Your task to perform on an android device: Open Google Maps and go to "Timeline" Image 0: 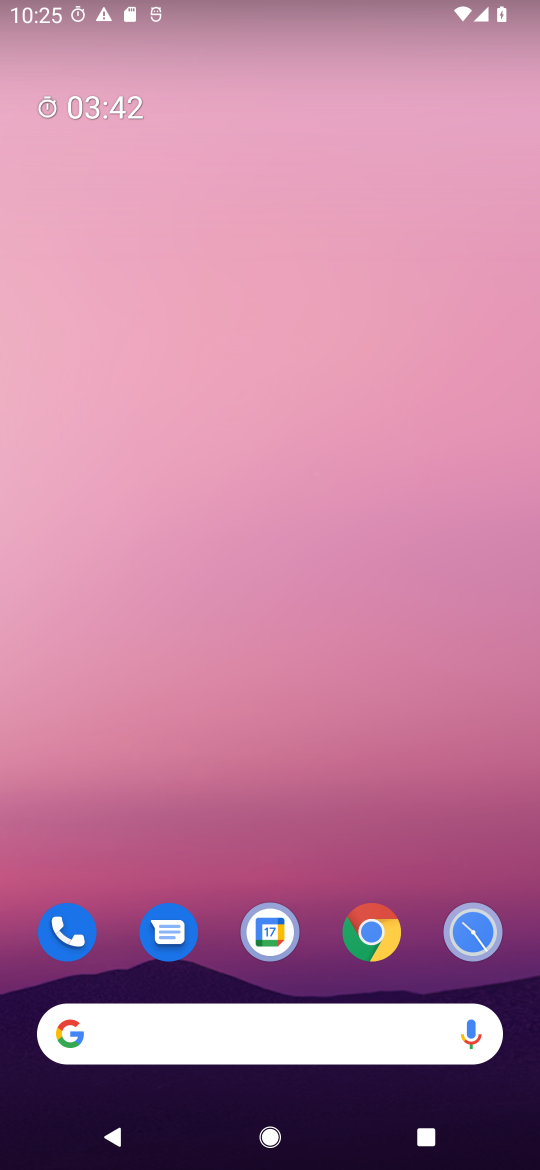
Step 0: drag from (308, 649) to (323, 109)
Your task to perform on an android device: Open Google Maps and go to "Timeline" Image 1: 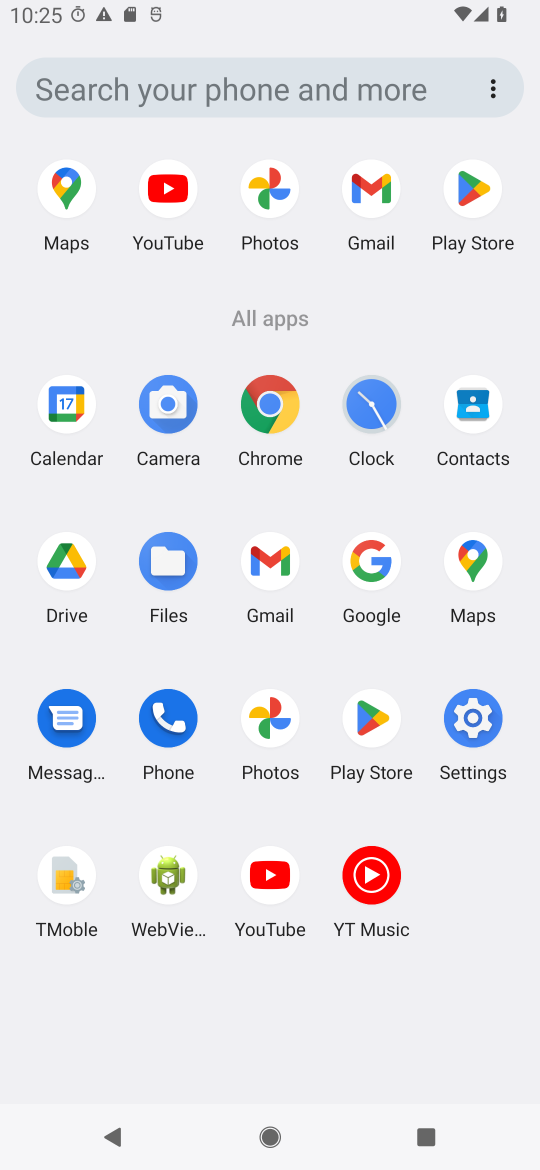
Step 1: click (475, 580)
Your task to perform on an android device: Open Google Maps and go to "Timeline" Image 2: 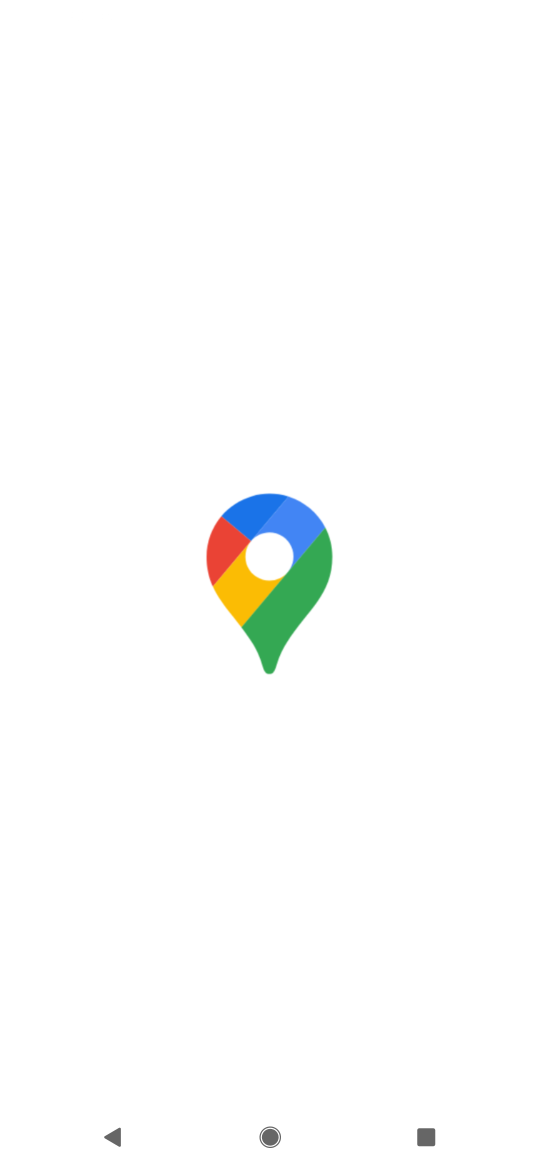
Step 2: task complete